Your task to perform on an android device: add a contact Image 0: 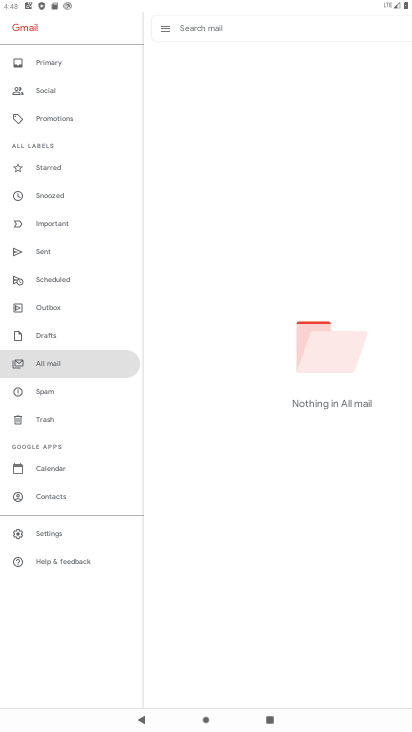
Step 0: press home button
Your task to perform on an android device: add a contact Image 1: 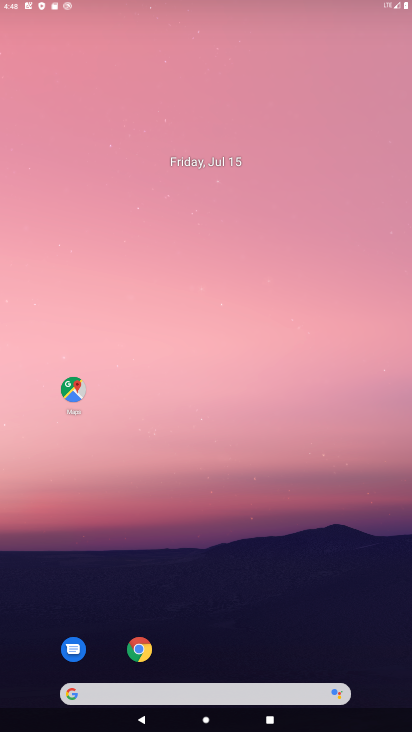
Step 1: drag from (221, 544) to (233, 2)
Your task to perform on an android device: add a contact Image 2: 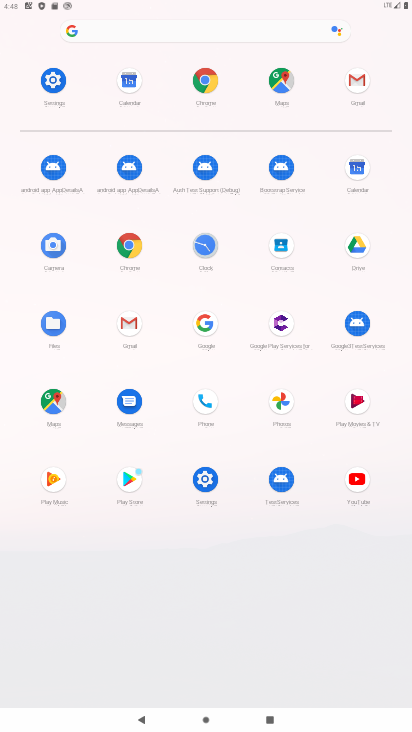
Step 2: click (281, 250)
Your task to perform on an android device: add a contact Image 3: 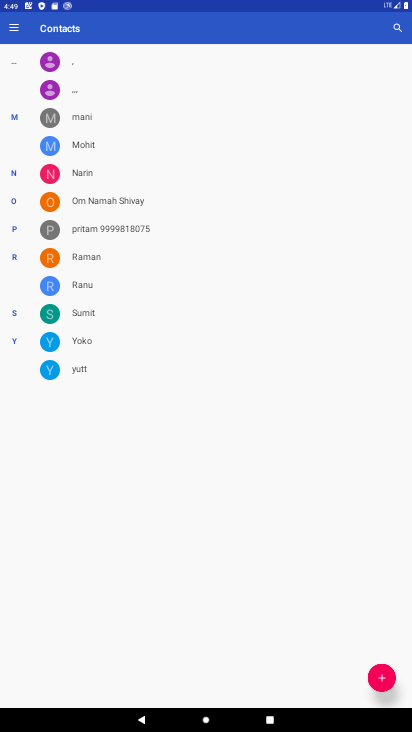
Step 3: click (388, 681)
Your task to perform on an android device: add a contact Image 4: 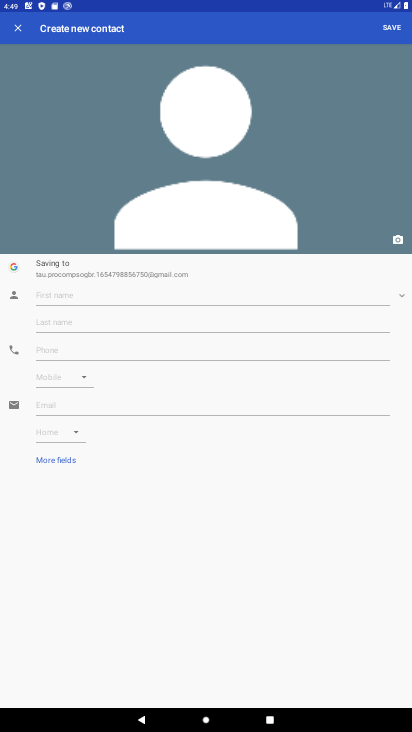
Step 4: click (153, 303)
Your task to perform on an android device: add a contact Image 5: 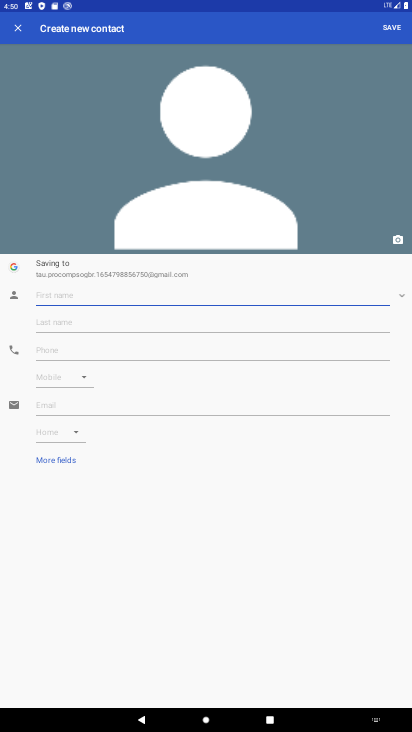
Step 5: type "choti si baat"
Your task to perform on an android device: add a contact Image 6: 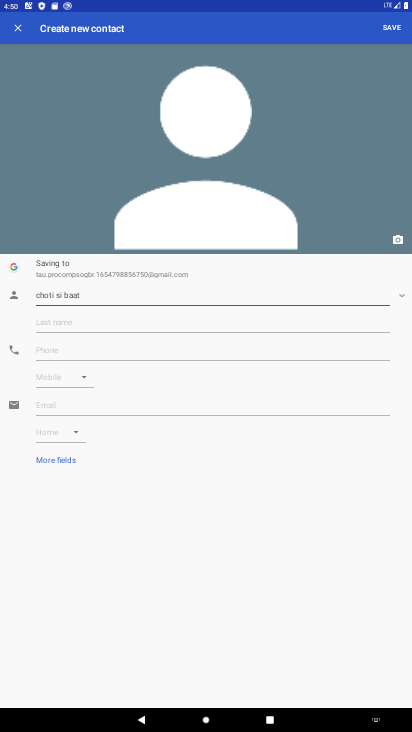
Step 6: click (398, 23)
Your task to perform on an android device: add a contact Image 7: 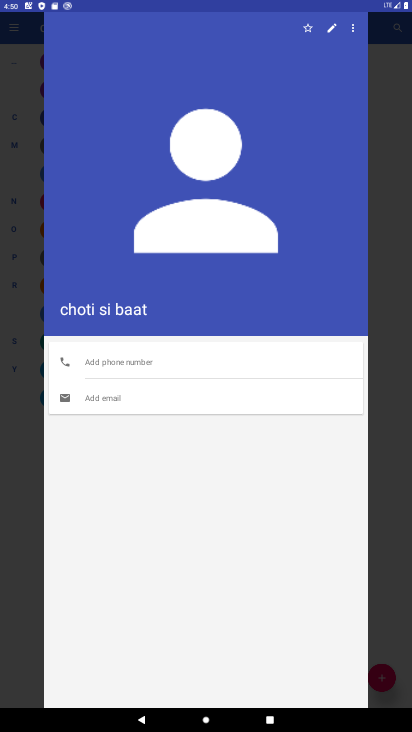
Step 7: task complete